Your task to perform on an android device: check google app version Image 0: 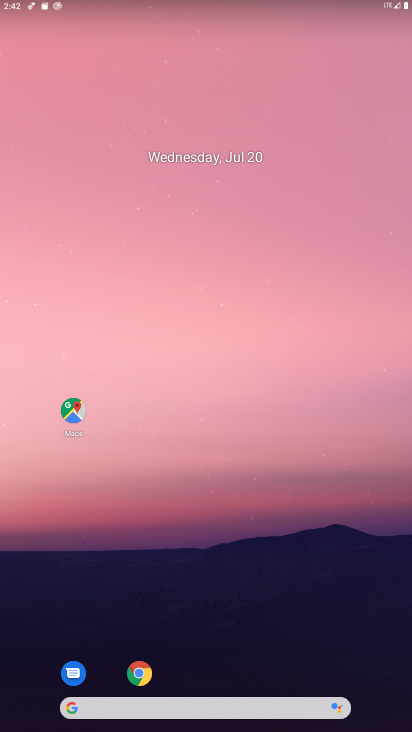
Step 0: click (64, 709)
Your task to perform on an android device: check google app version Image 1: 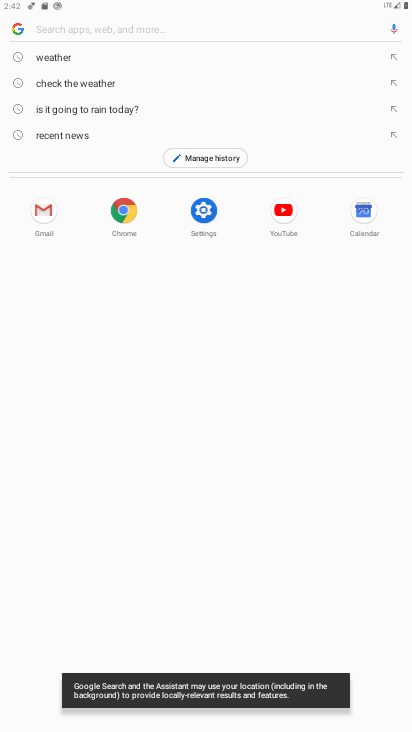
Step 1: click (20, 26)
Your task to perform on an android device: check google app version Image 2: 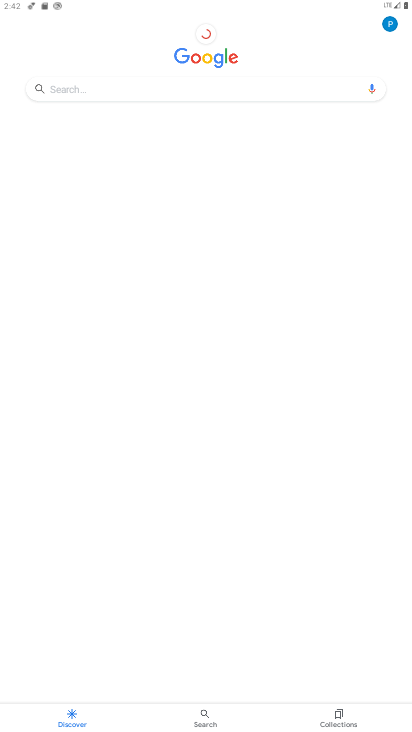
Step 2: click (391, 28)
Your task to perform on an android device: check google app version Image 3: 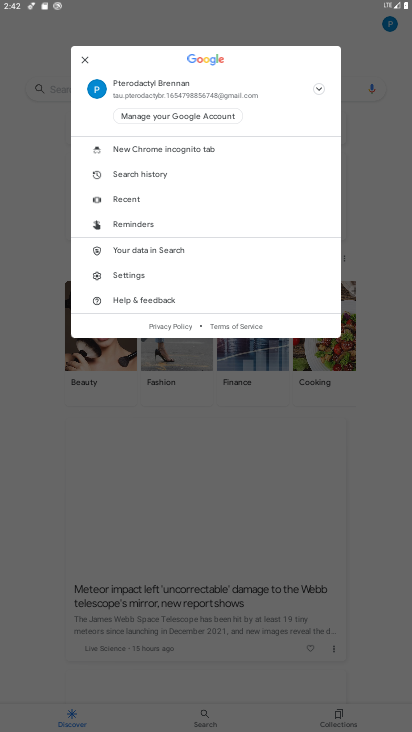
Step 3: click (129, 275)
Your task to perform on an android device: check google app version Image 4: 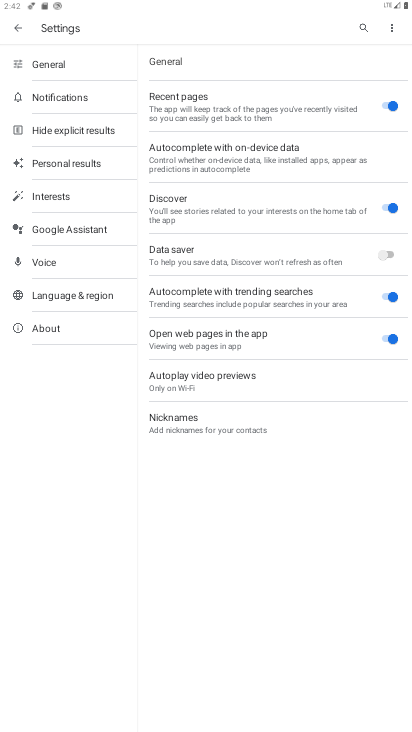
Step 4: click (66, 327)
Your task to perform on an android device: check google app version Image 5: 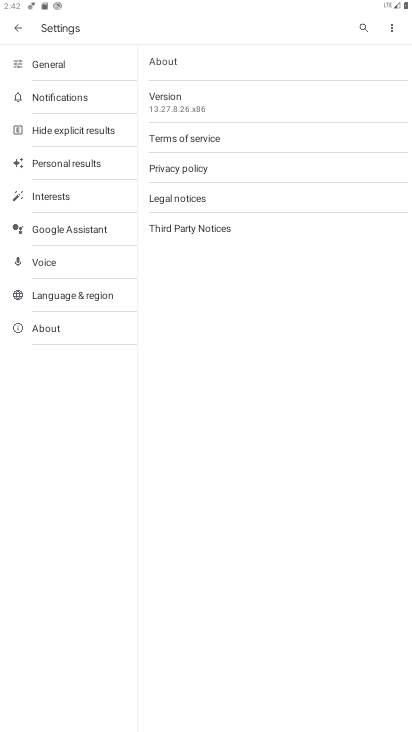
Step 5: task complete